Your task to perform on an android device: turn on the 24-hour format for clock Image 0: 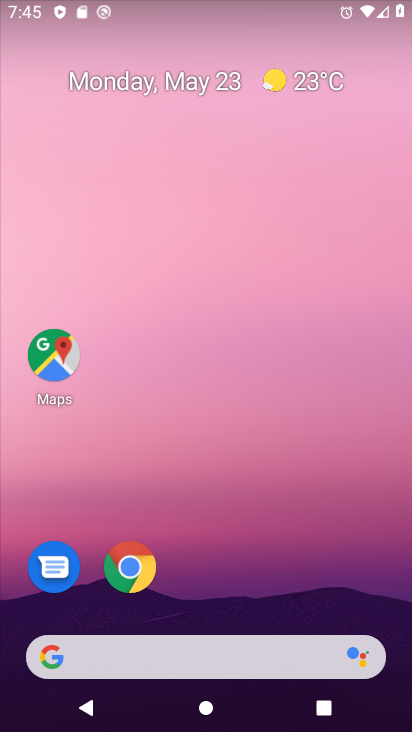
Step 0: drag from (245, 586) to (276, 258)
Your task to perform on an android device: turn on the 24-hour format for clock Image 1: 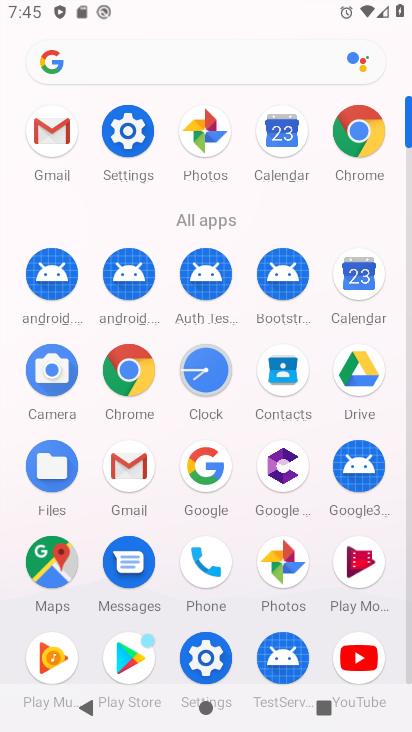
Step 1: click (206, 376)
Your task to perform on an android device: turn on the 24-hour format for clock Image 2: 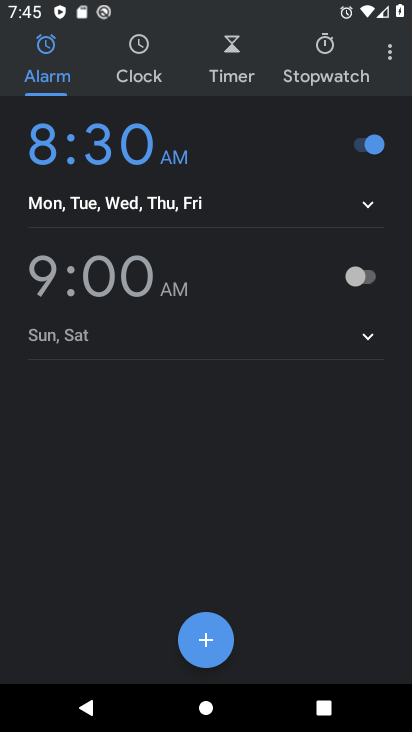
Step 2: click (378, 58)
Your task to perform on an android device: turn on the 24-hour format for clock Image 3: 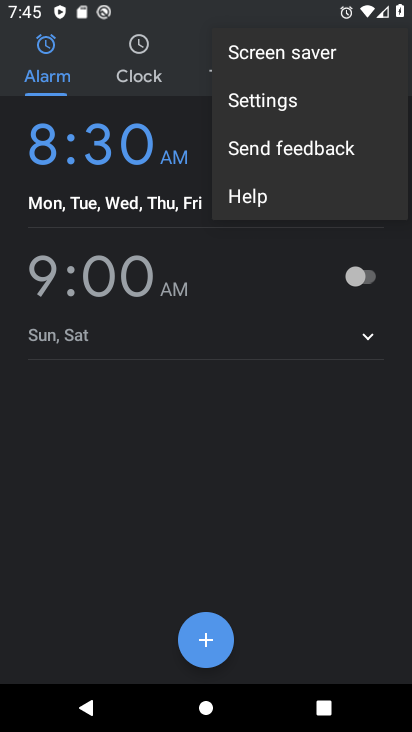
Step 3: click (279, 104)
Your task to perform on an android device: turn on the 24-hour format for clock Image 4: 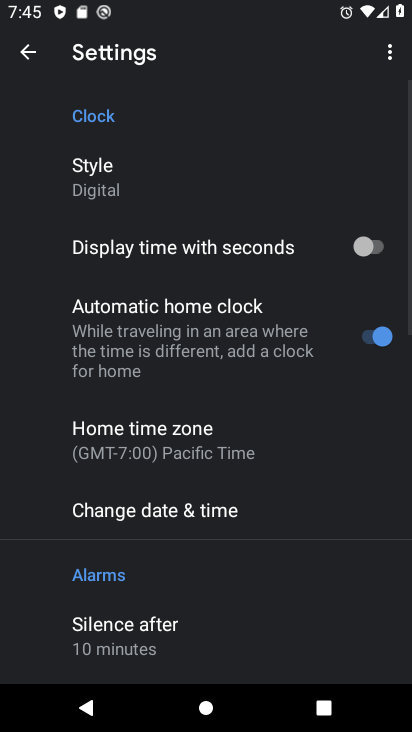
Step 4: drag from (204, 538) to (224, 471)
Your task to perform on an android device: turn on the 24-hour format for clock Image 5: 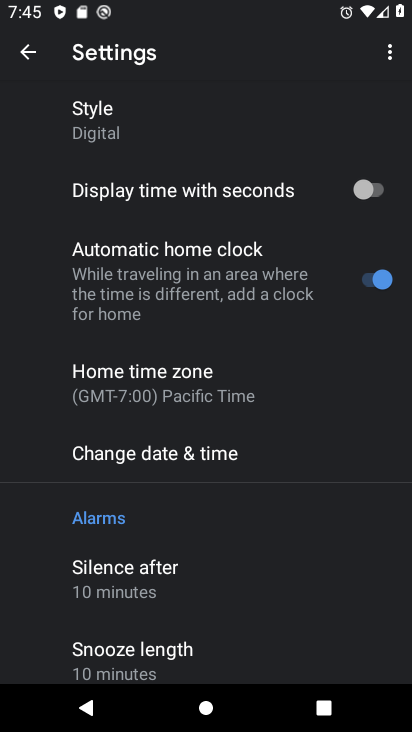
Step 5: click (172, 442)
Your task to perform on an android device: turn on the 24-hour format for clock Image 6: 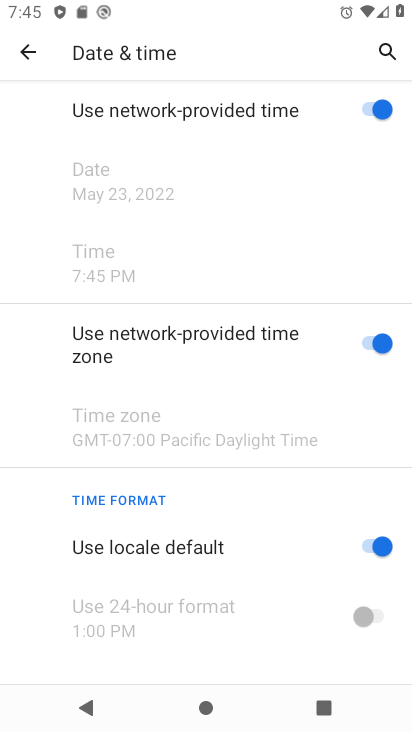
Step 6: click (387, 551)
Your task to perform on an android device: turn on the 24-hour format for clock Image 7: 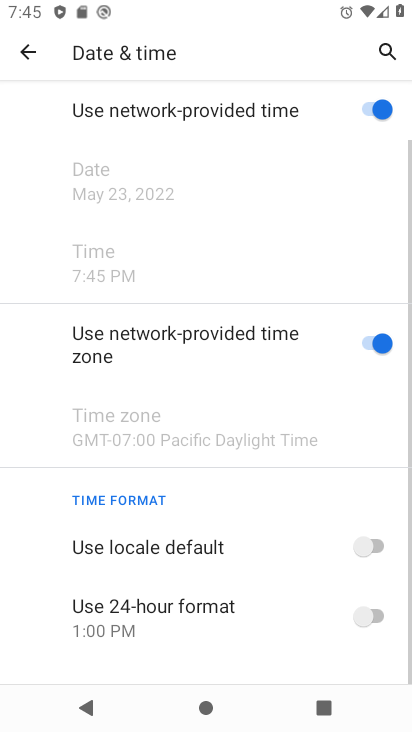
Step 7: click (370, 601)
Your task to perform on an android device: turn on the 24-hour format for clock Image 8: 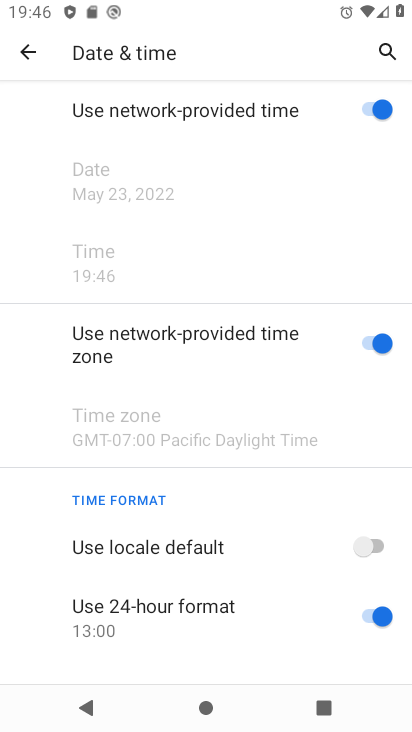
Step 8: task complete